Your task to perform on an android device: turn on priority inbox in the gmail app Image 0: 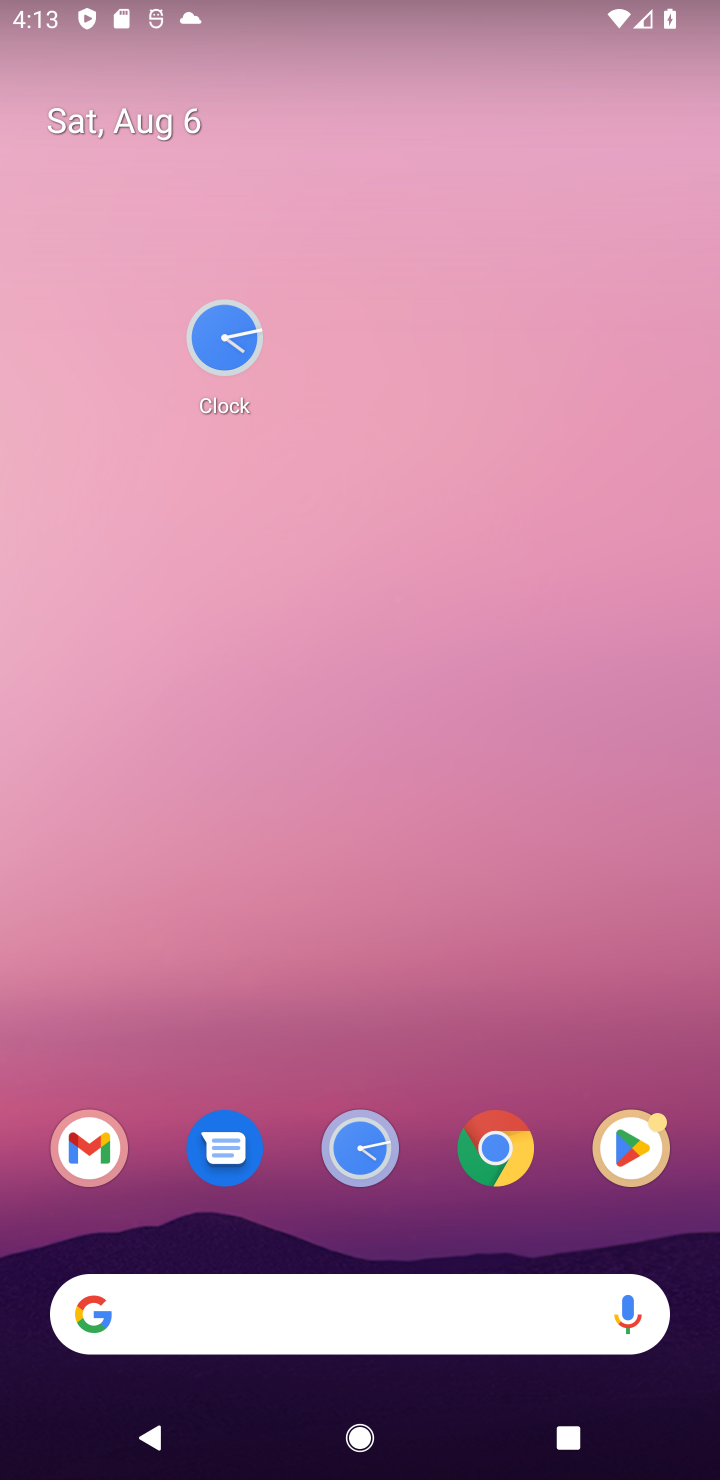
Step 0: drag from (276, 1209) to (331, 186)
Your task to perform on an android device: turn on priority inbox in the gmail app Image 1: 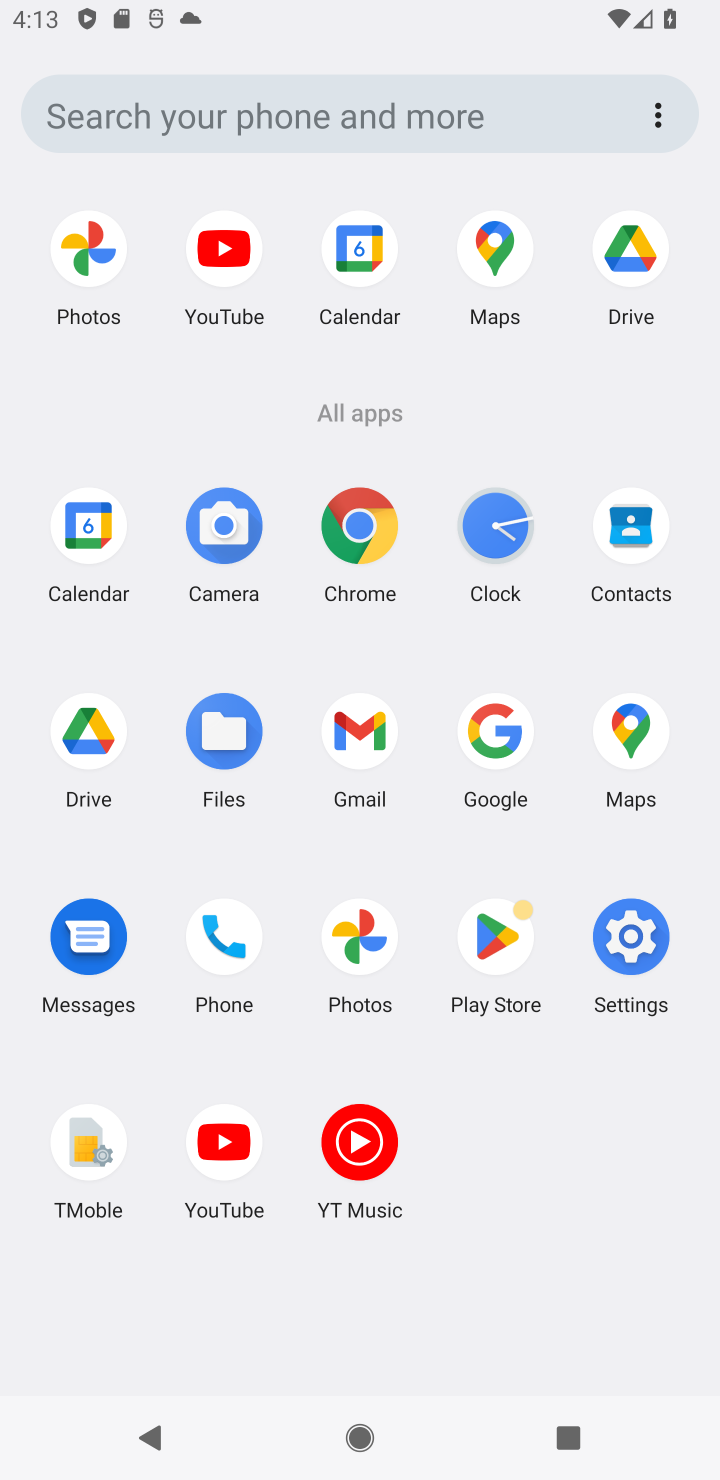
Step 1: click (362, 734)
Your task to perform on an android device: turn on priority inbox in the gmail app Image 2: 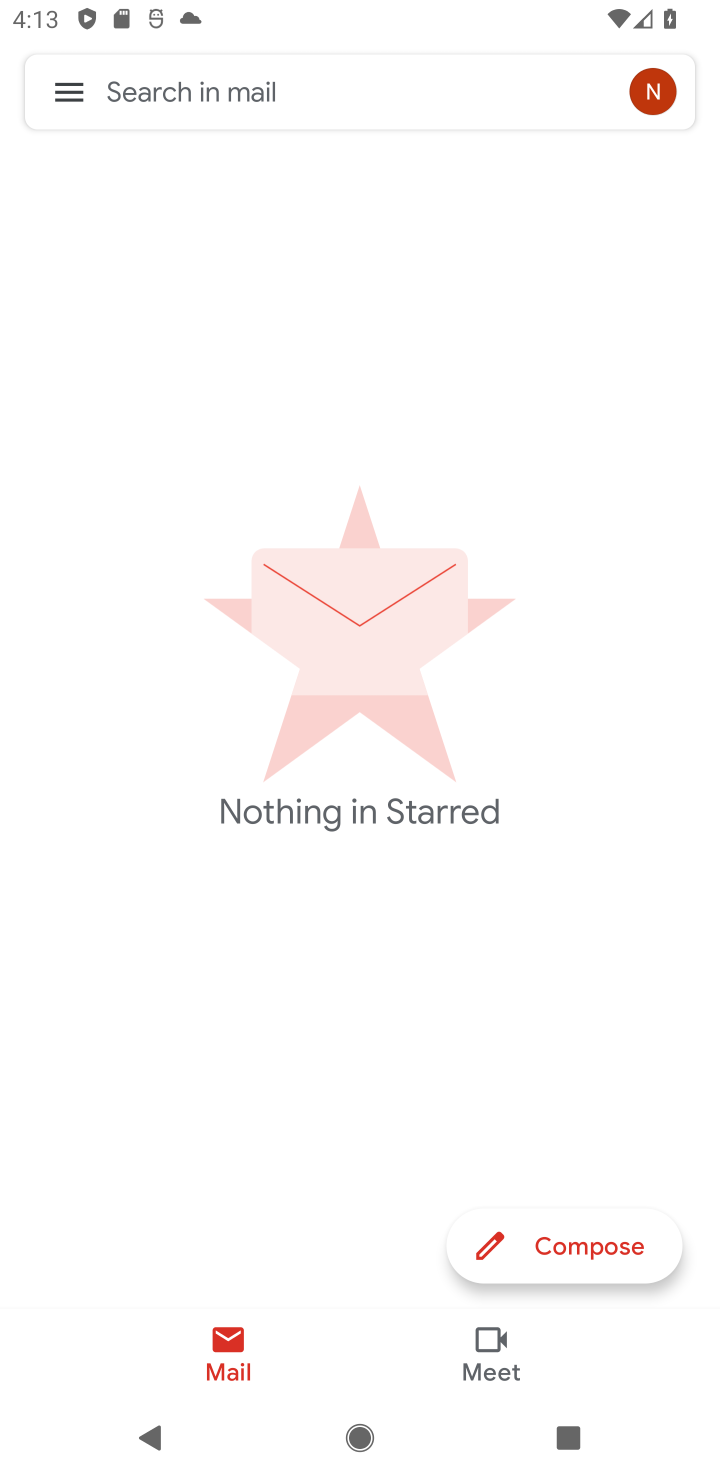
Step 2: click (42, 88)
Your task to perform on an android device: turn on priority inbox in the gmail app Image 3: 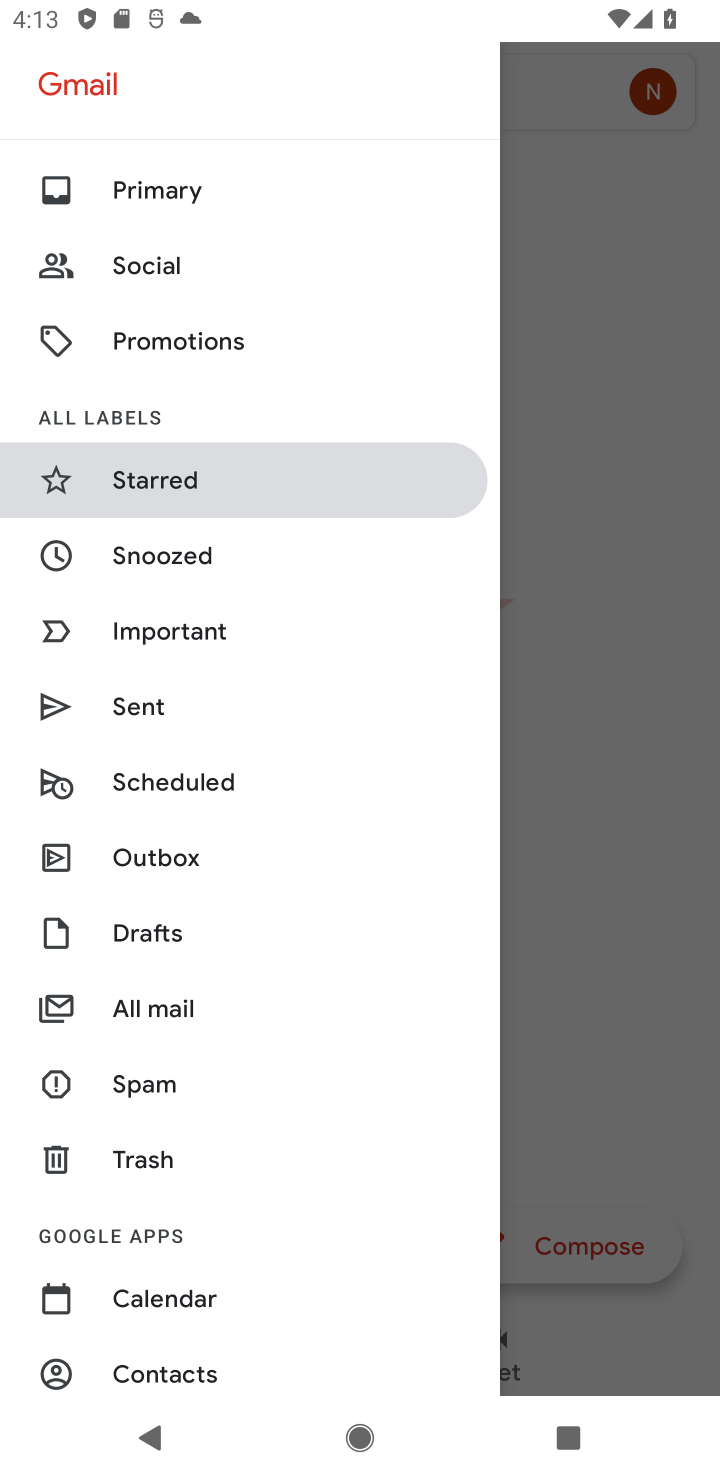
Step 3: drag from (342, 1161) to (339, 353)
Your task to perform on an android device: turn on priority inbox in the gmail app Image 4: 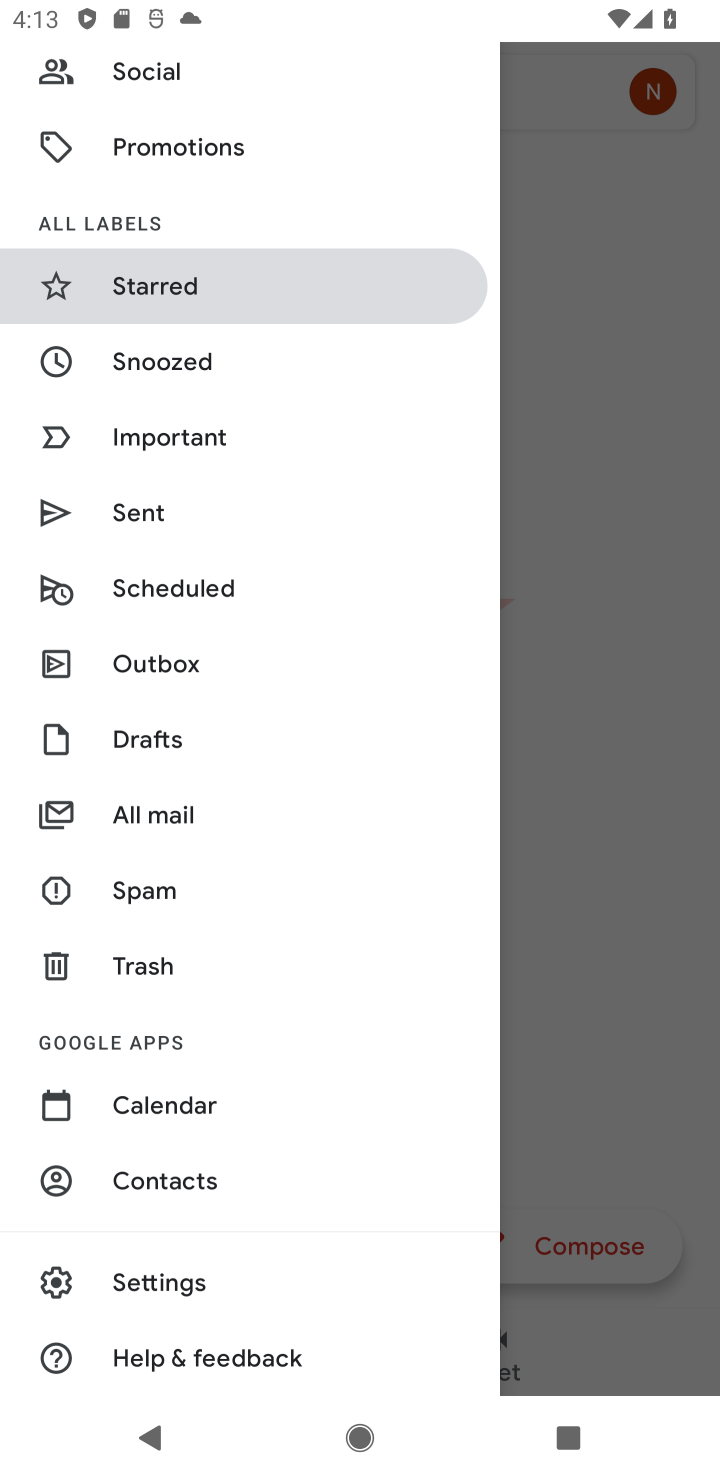
Step 4: drag from (167, 1299) to (224, 641)
Your task to perform on an android device: turn on priority inbox in the gmail app Image 5: 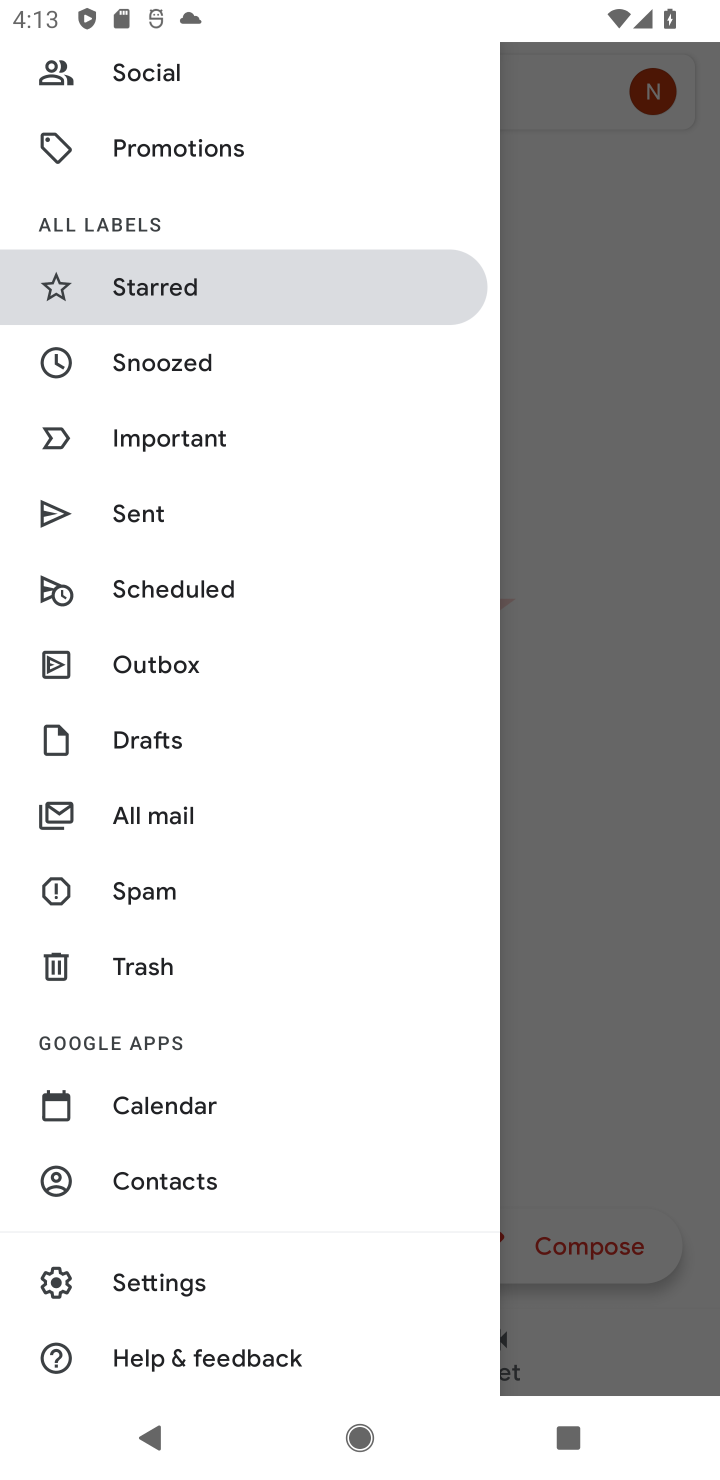
Step 5: click (207, 1295)
Your task to perform on an android device: turn on priority inbox in the gmail app Image 6: 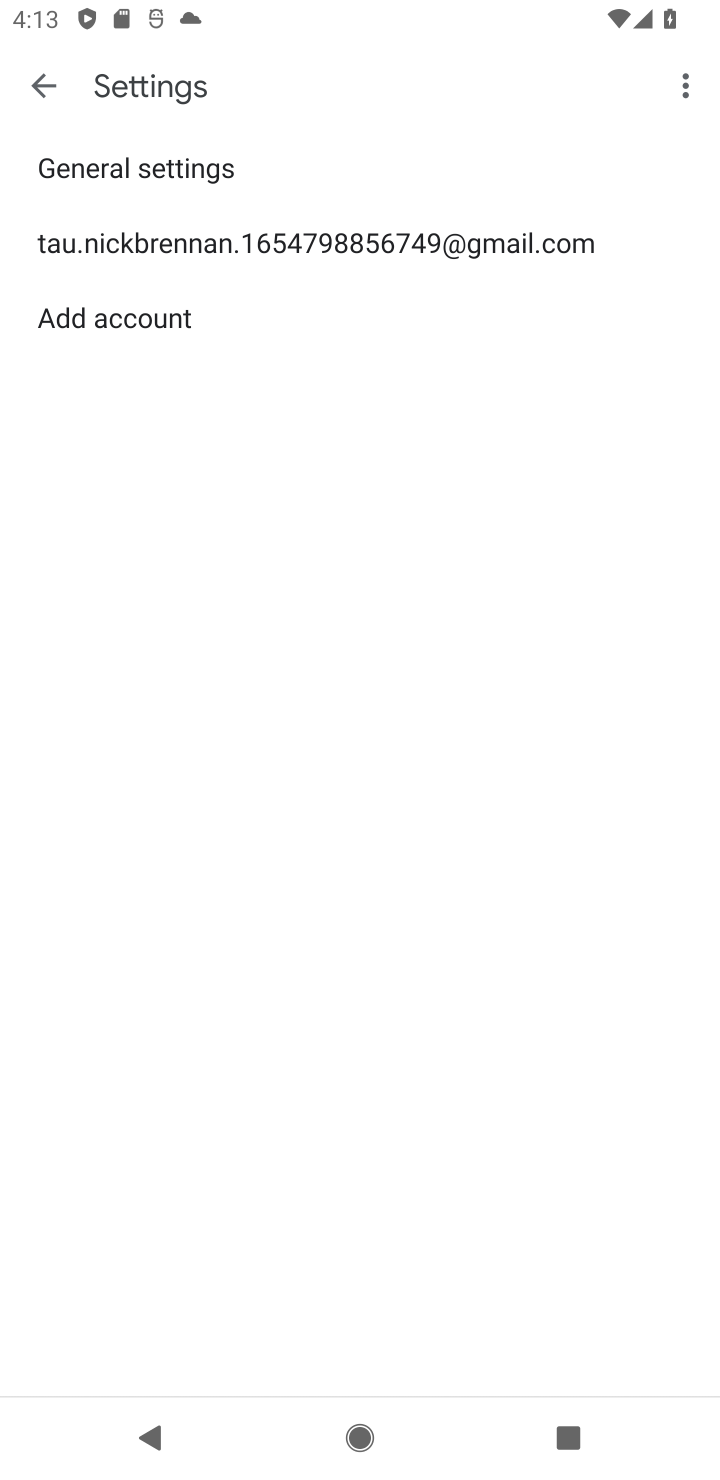
Step 6: drag from (172, 1156) to (304, 421)
Your task to perform on an android device: turn on priority inbox in the gmail app Image 7: 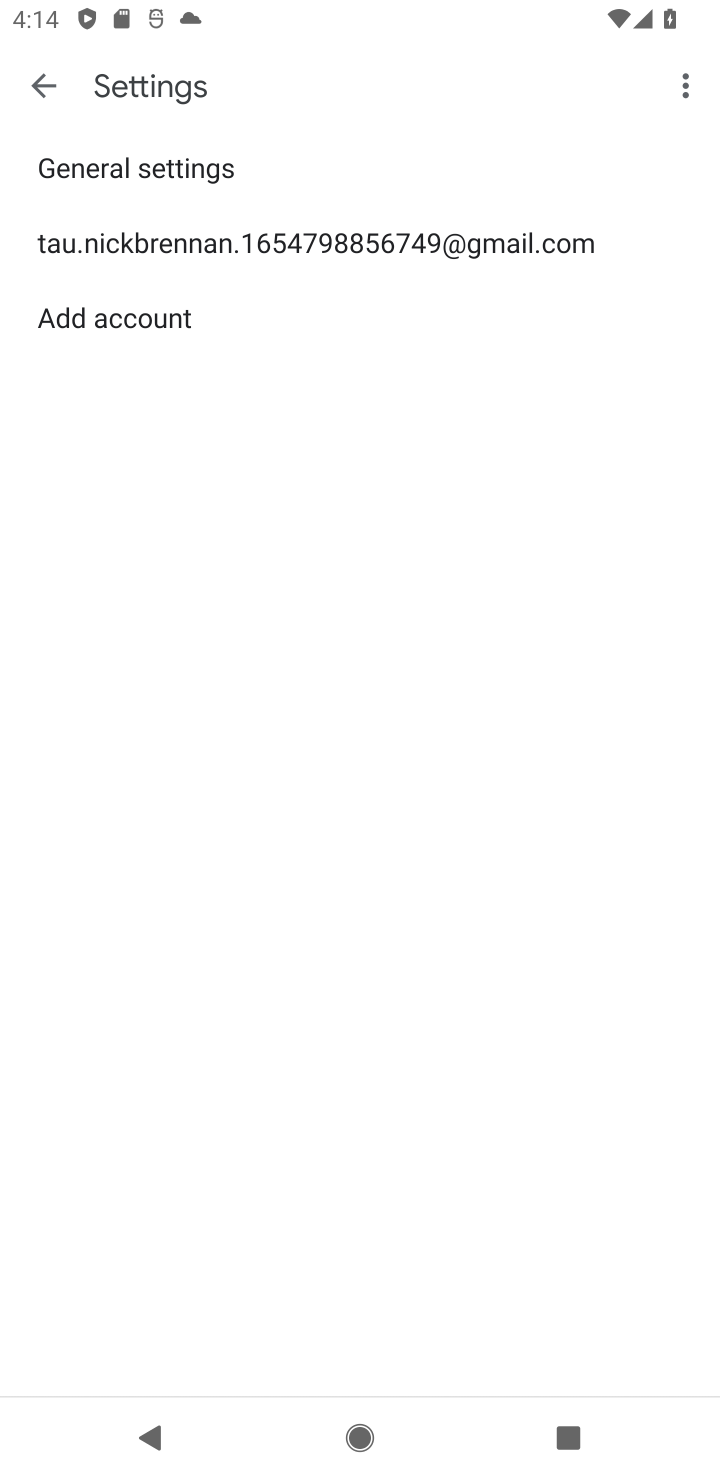
Step 7: drag from (326, 975) to (324, 677)
Your task to perform on an android device: turn on priority inbox in the gmail app Image 8: 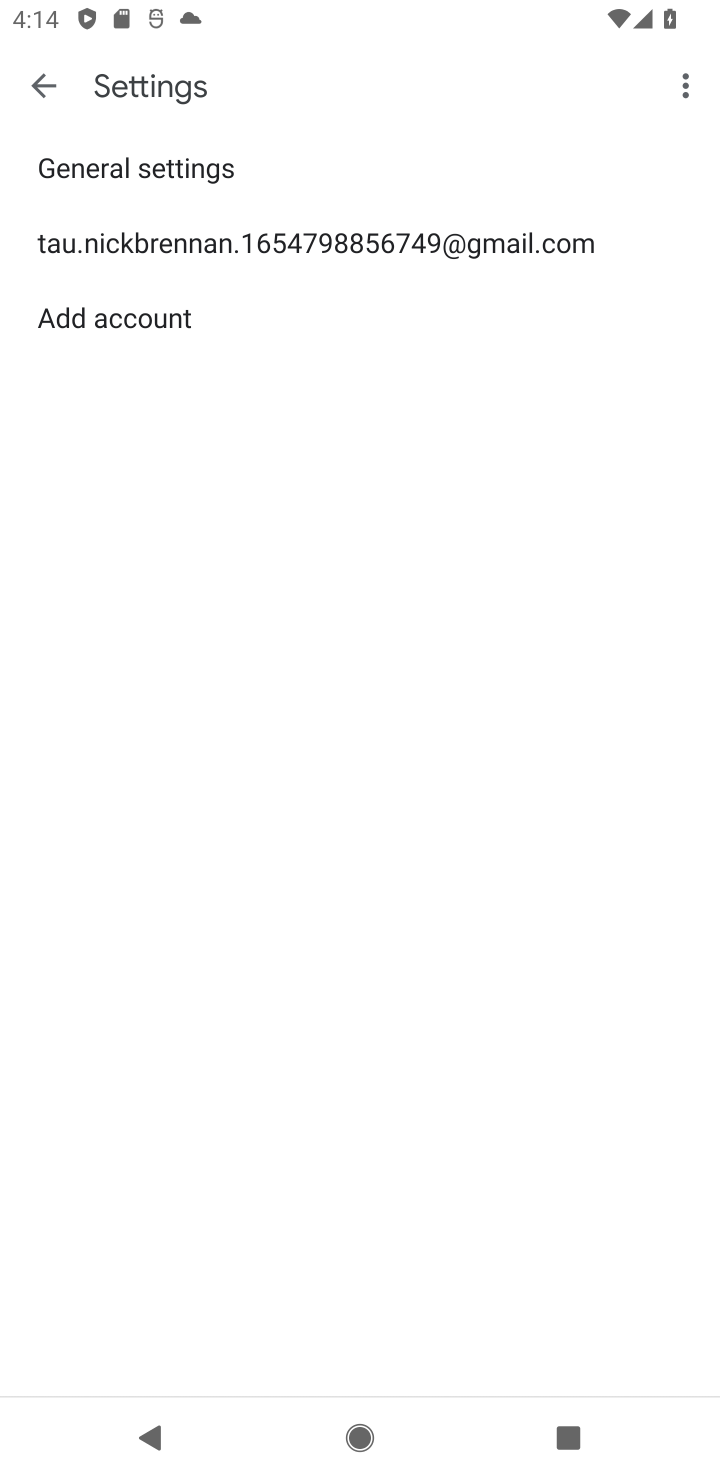
Step 8: drag from (378, 1039) to (380, 395)
Your task to perform on an android device: turn on priority inbox in the gmail app Image 9: 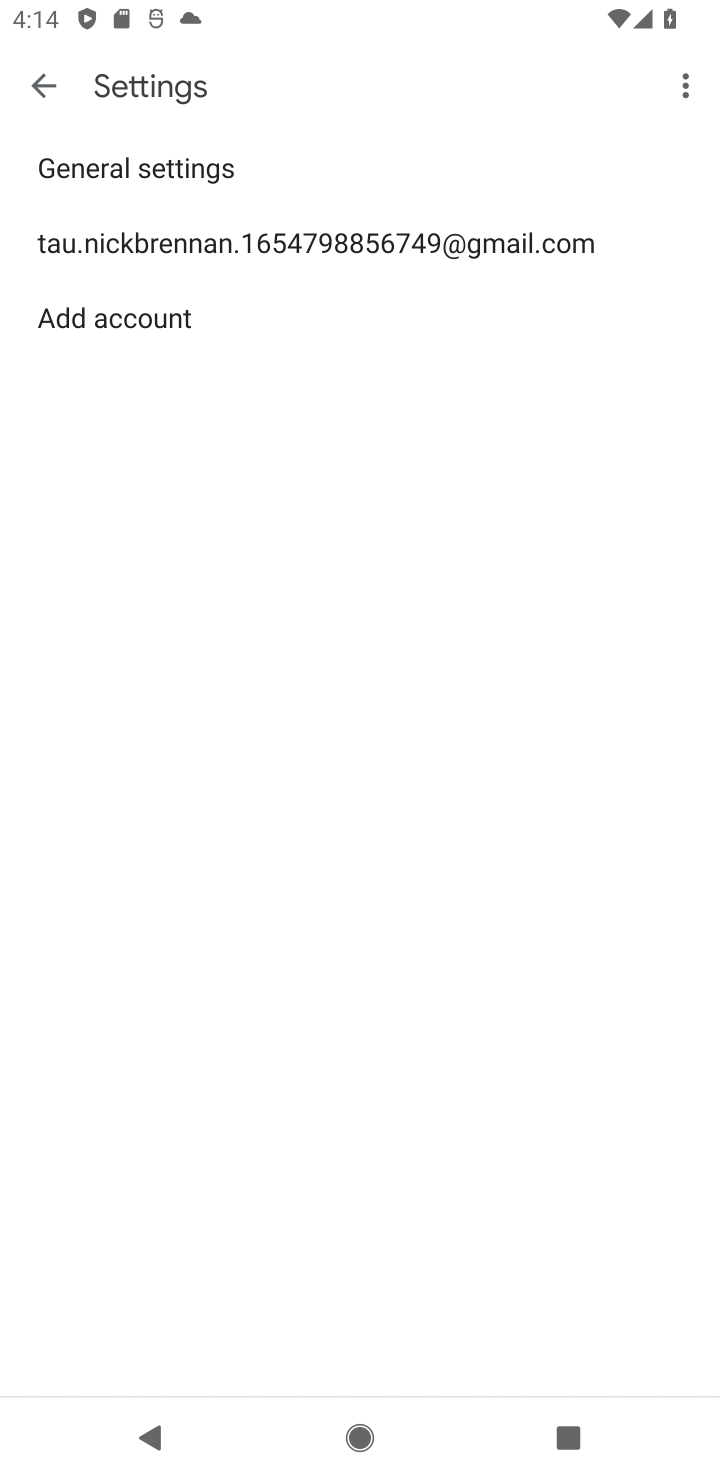
Step 9: drag from (223, 867) to (315, 433)
Your task to perform on an android device: turn on priority inbox in the gmail app Image 10: 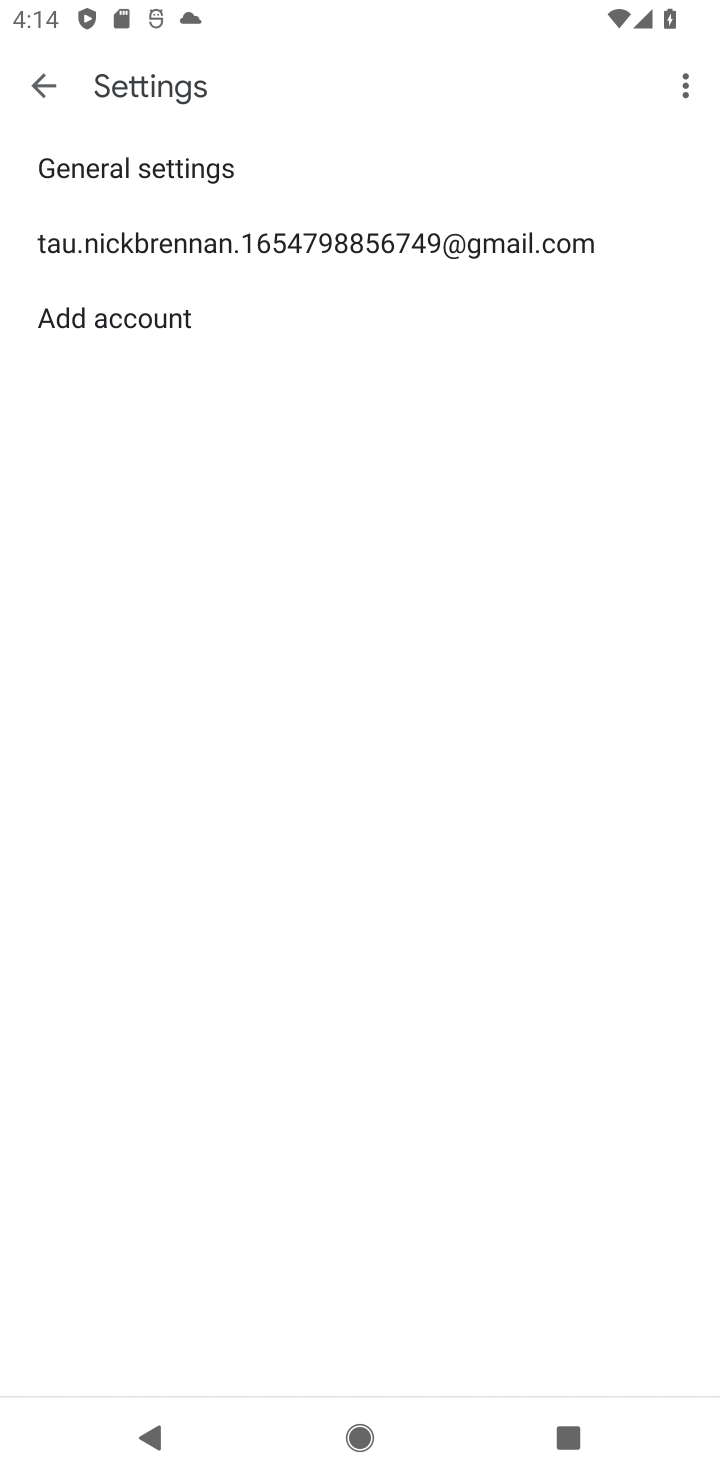
Step 10: click (374, 255)
Your task to perform on an android device: turn on priority inbox in the gmail app Image 11: 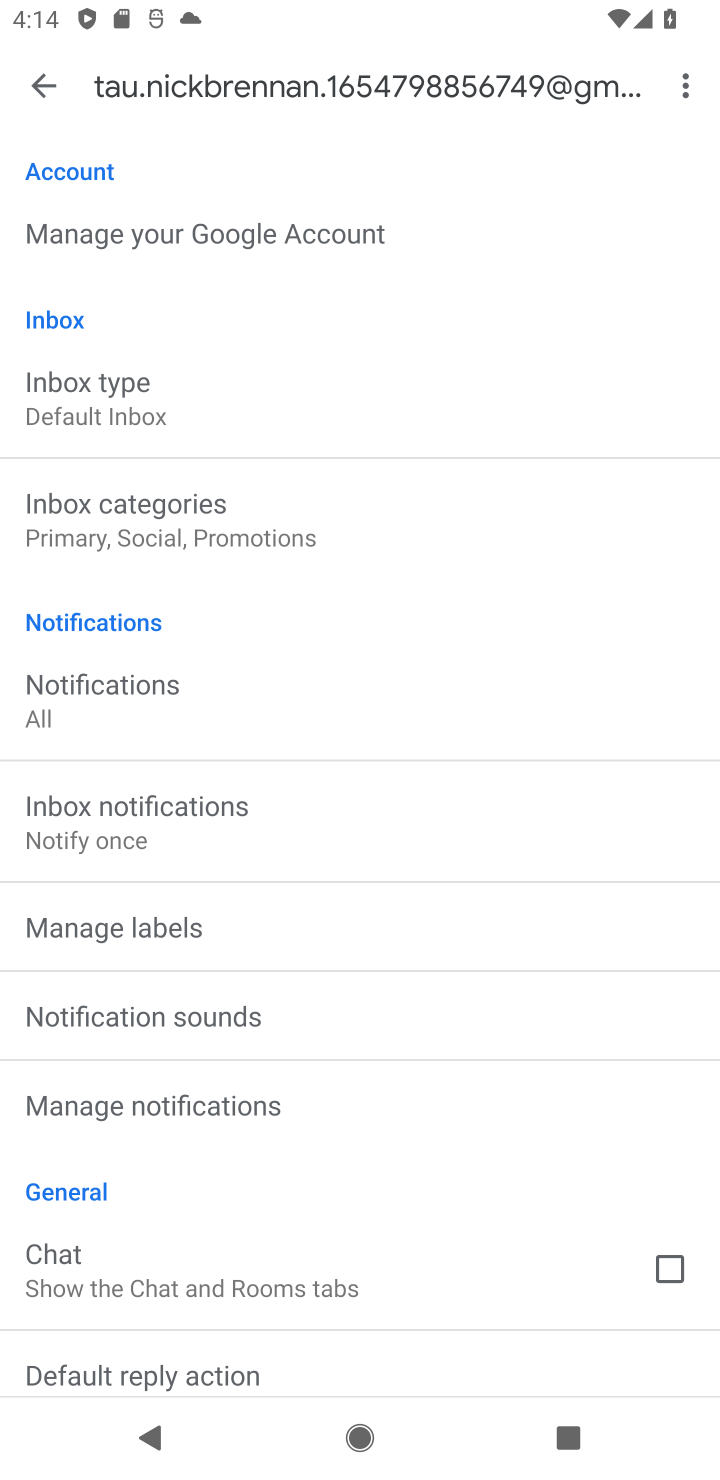
Step 11: click (173, 386)
Your task to perform on an android device: turn on priority inbox in the gmail app Image 12: 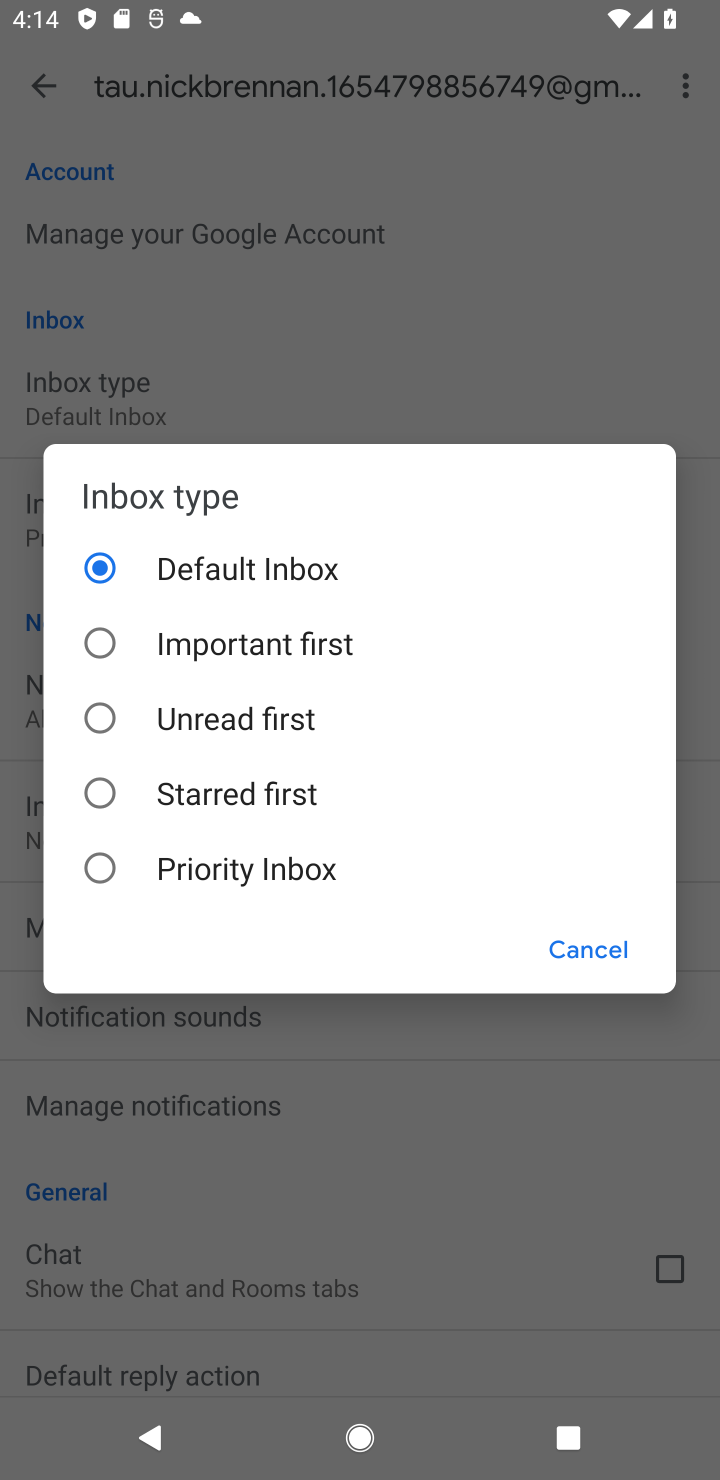
Step 12: click (213, 857)
Your task to perform on an android device: turn on priority inbox in the gmail app Image 13: 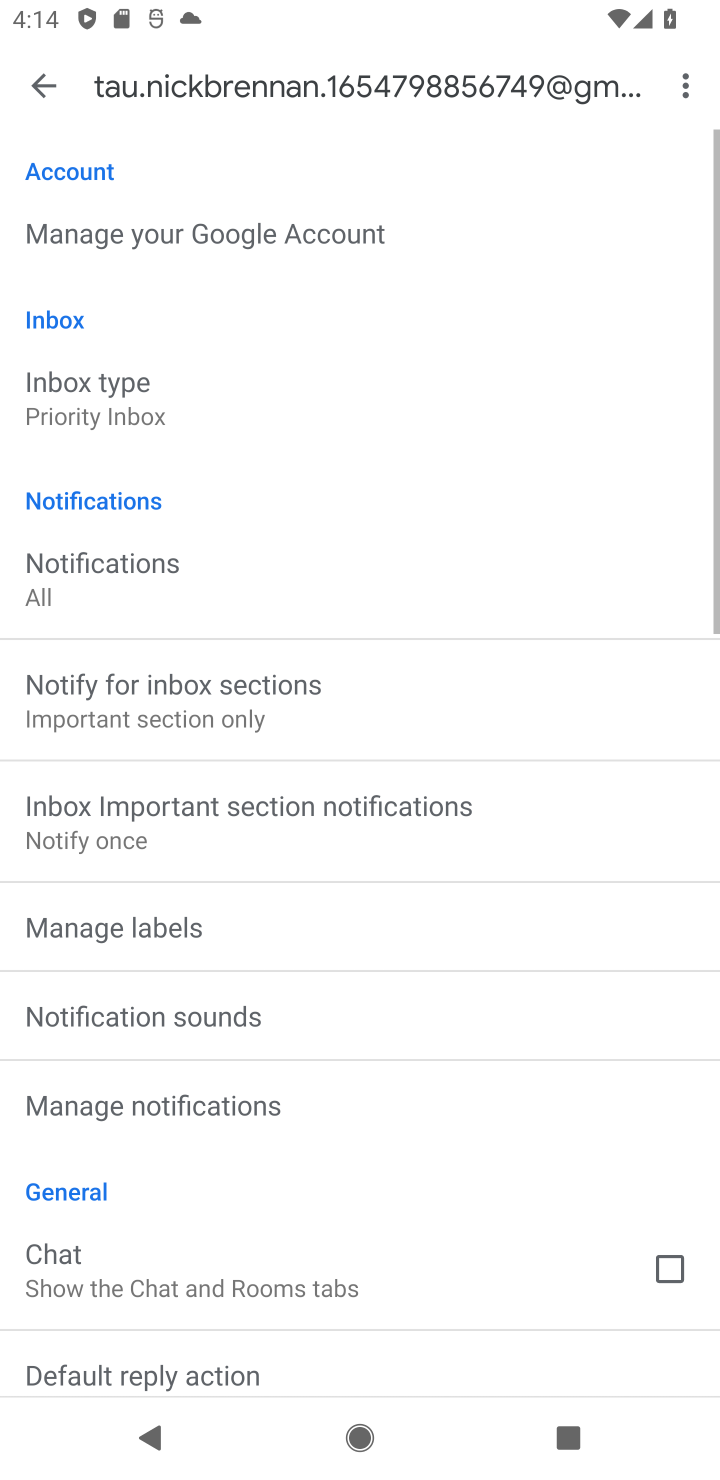
Step 13: task complete